Your task to perform on an android device: Open location settings Image 0: 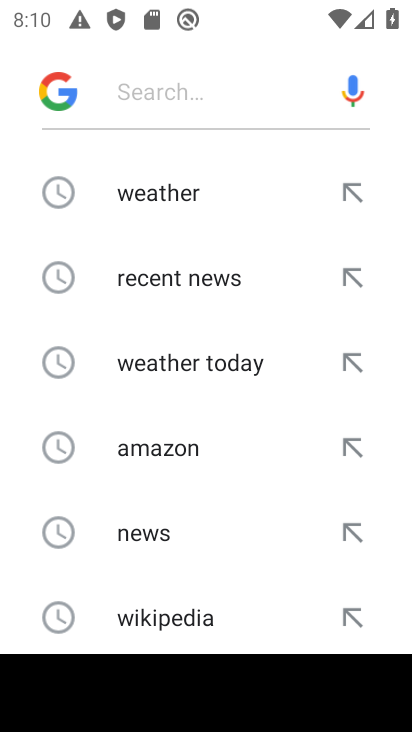
Step 0: press home button
Your task to perform on an android device: Open location settings Image 1: 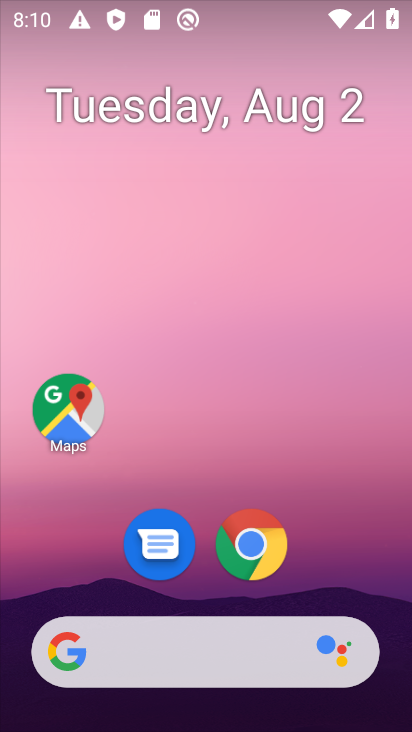
Step 1: drag from (199, 607) to (43, 62)
Your task to perform on an android device: Open location settings Image 2: 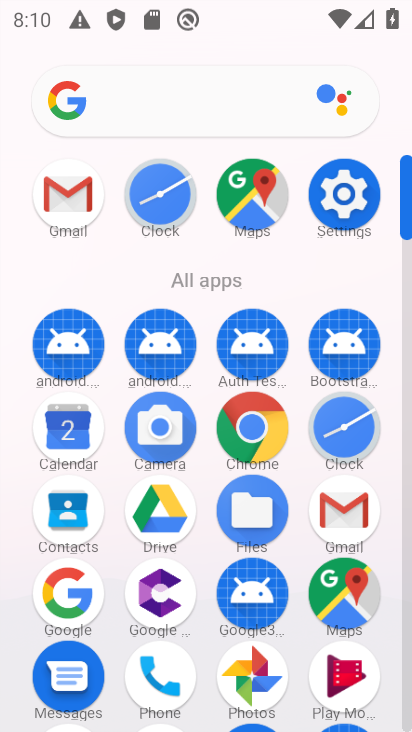
Step 2: click (324, 197)
Your task to perform on an android device: Open location settings Image 3: 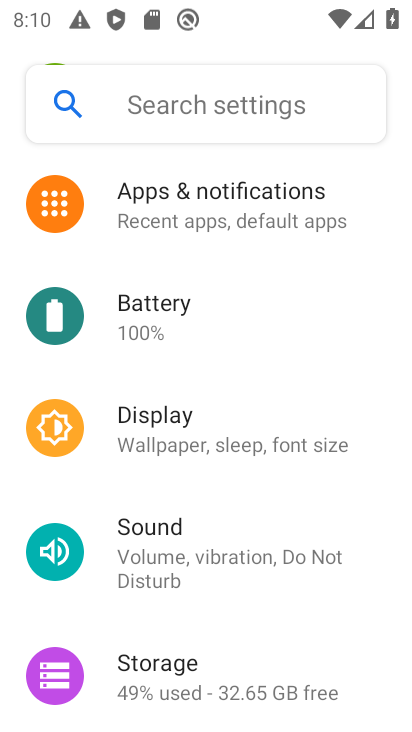
Step 3: drag from (253, 538) to (122, 101)
Your task to perform on an android device: Open location settings Image 4: 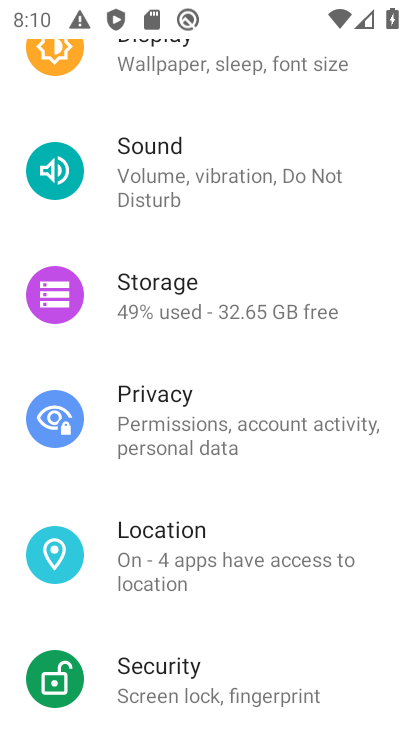
Step 4: click (188, 526)
Your task to perform on an android device: Open location settings Image 5: 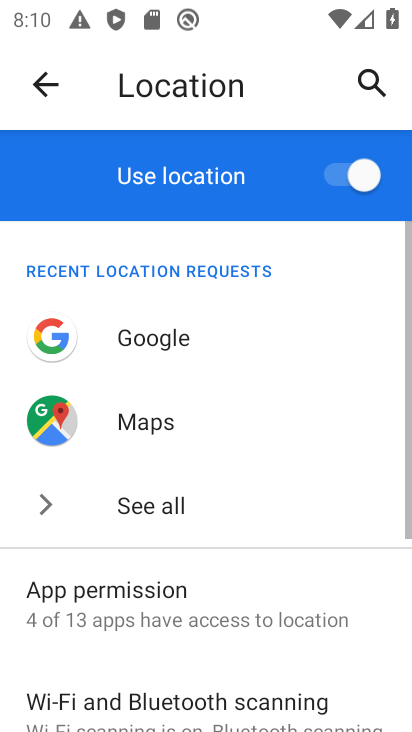
Step 5: task complete